Your task to perform on an android device: read, delete, or share a saved page in the chrome app Image 0: 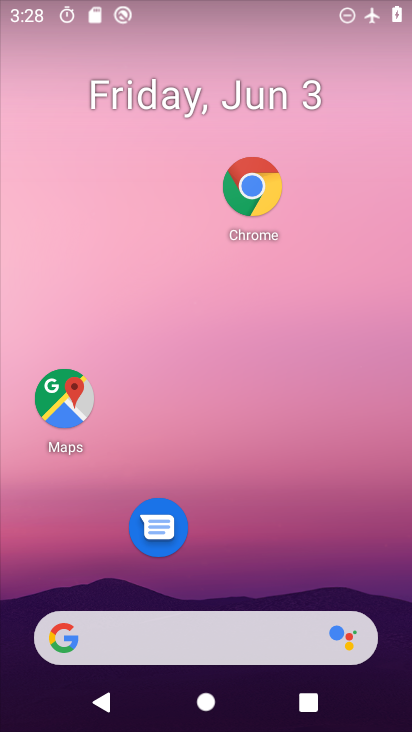
Step 0: drag from (247, 540) to (240, 166)
Your task to perform on an android device: read, delete, or share a saved page in the chrome app Image 1: 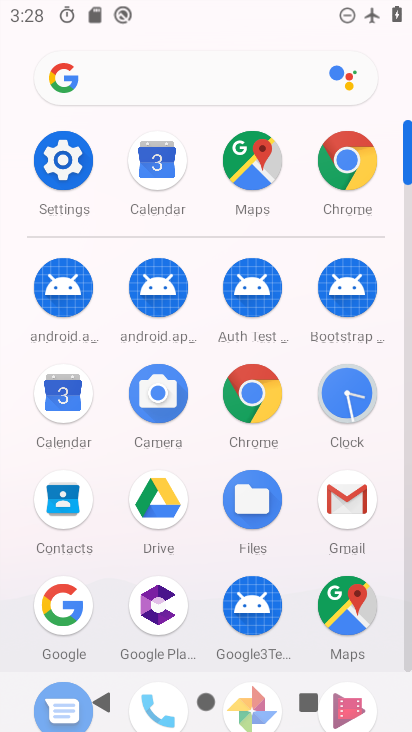
Step 1: click (246, 393)
Your task to perform on an android device: read, delete, or share a saved page in the chrome app Image 2: 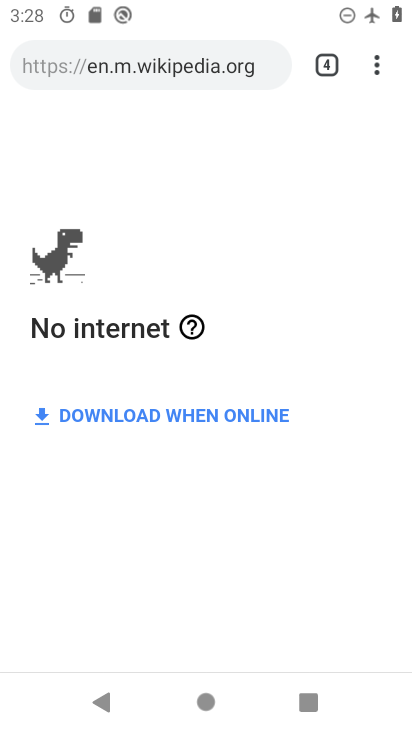
Step 2: click (374, 67)
Your task to perform on an android device: read, delete, or share a saved page in the chrome app Image 3: 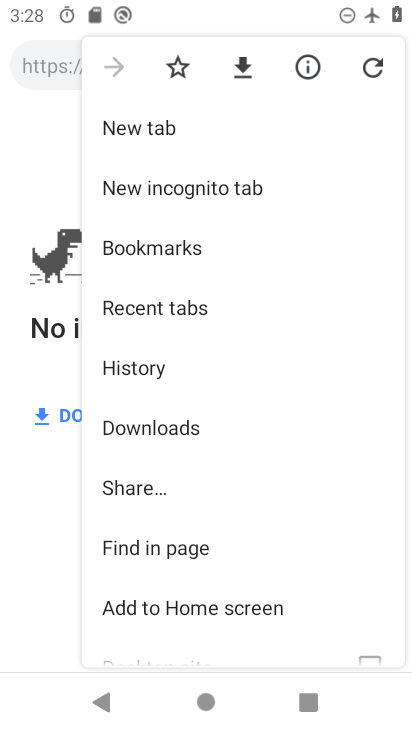
Step 3: drag from (225, 545) to (151, 410)
Your task to perform on an android device: read, delete, or share a saved page in the chrome app Image 4: 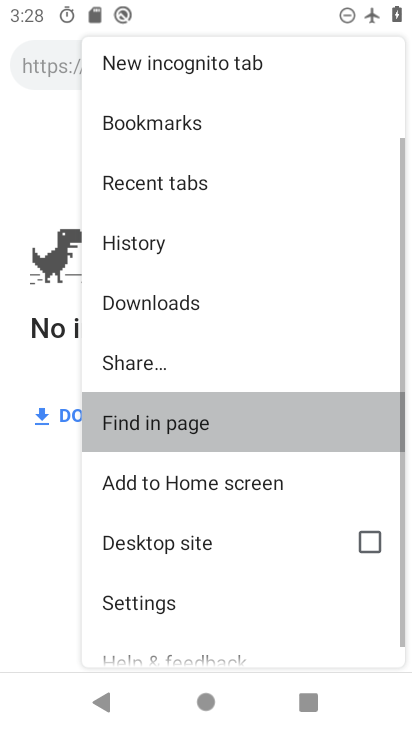
Step 4: click (136, 431)
Your task to perform on an android device: read, delete, or share a saved page in the chrome app Image 5: 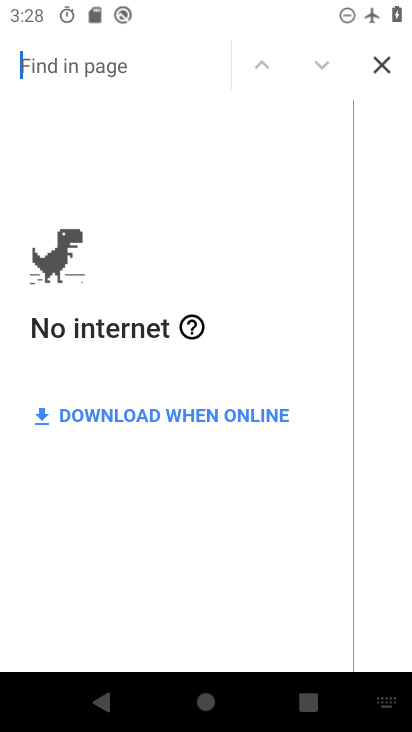
Step 5: click (389, 67)
Your task to perform on an android device: read, delete, or share a saved page in the chrome app Image 6: 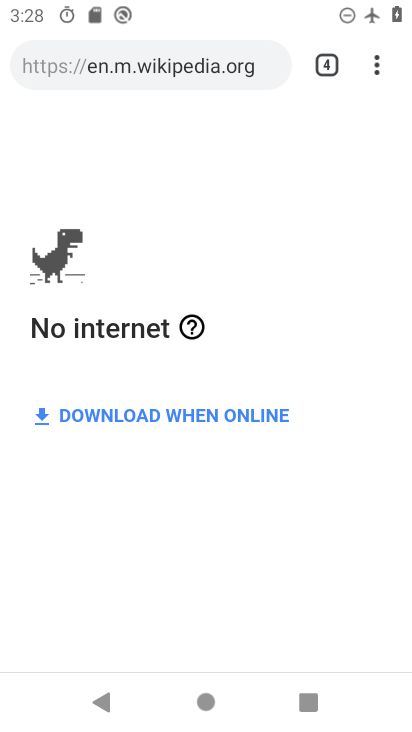
Step 6: click (369, 55)
Your task to perform on an android device: read, delete, or share a saved page in the chrome app Image 7: 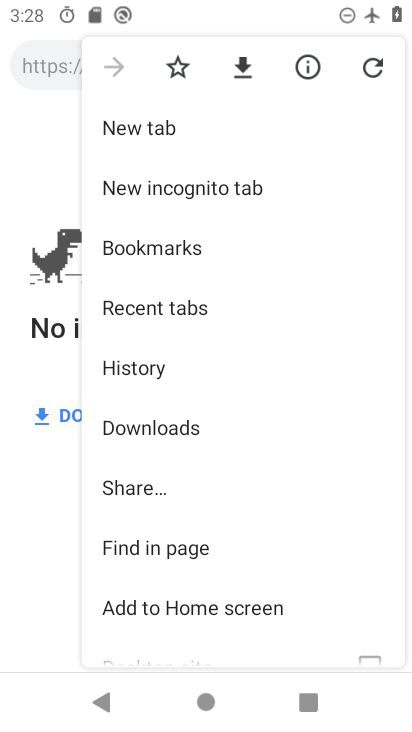
Step 7: click (157, 429)
Your task to perform on an android device: read, delete, or share a saved page in the chrome app Image 8: 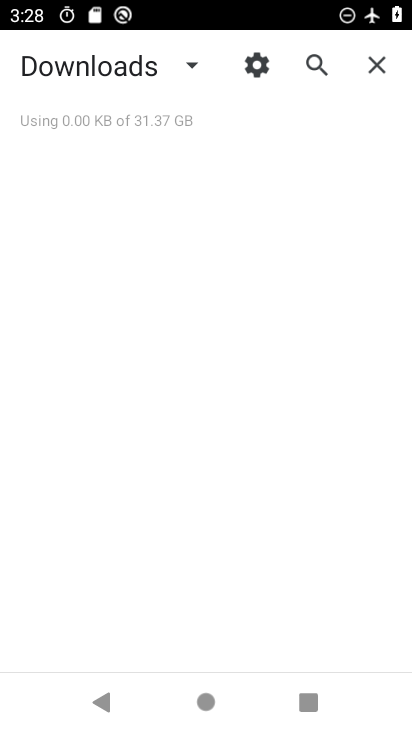
Step 8: click (192, 65)
Your task to perform on an android device: read, delete, or share a saved page in the chrome app Image 9: 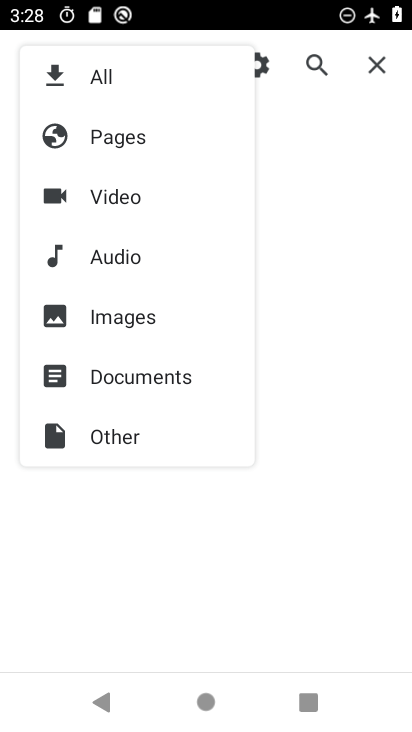
Step 9: click (130, 130)
Your task to perform on an android device: read, delete, or share a saved page in the chrome app Image 10: 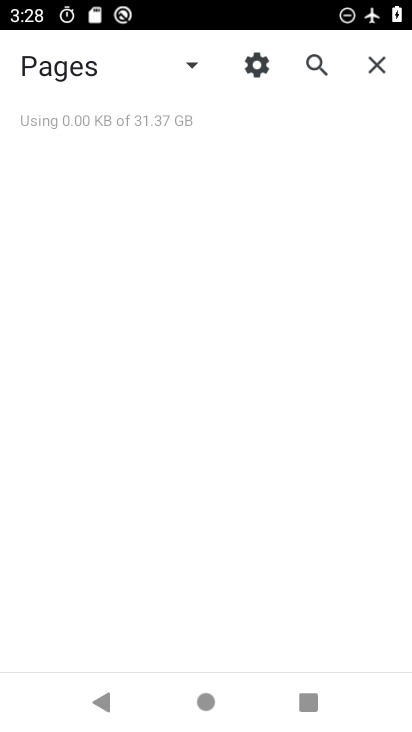
Step 10: task complete